Your task to perform on an android device: turn on the 24-hour format for clock Image 0: 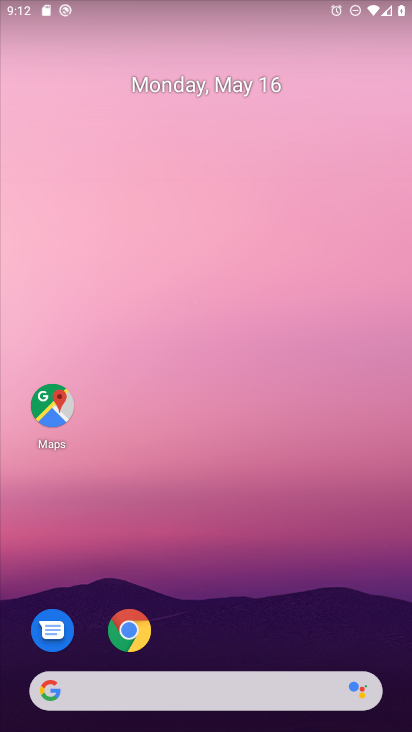
Step 0: drag from (199, 625) to (220, 120)
Your task to perform on an android device: turn on the 24-hour format for clock Image 1: 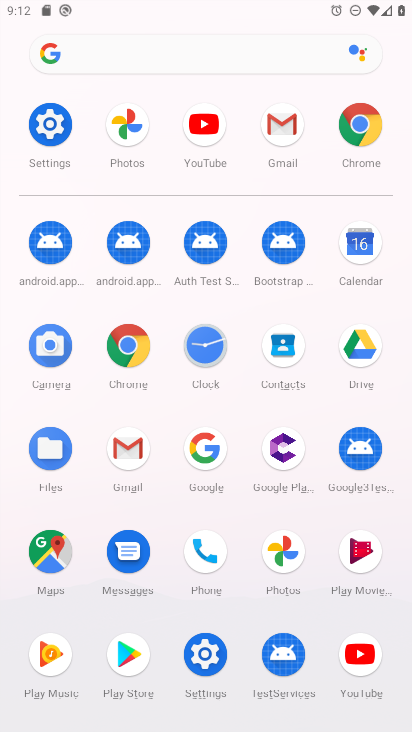
Step 1: click (208, 355)
Your task to perform on an android device: turn on the 24-hour format for clock Image 2: 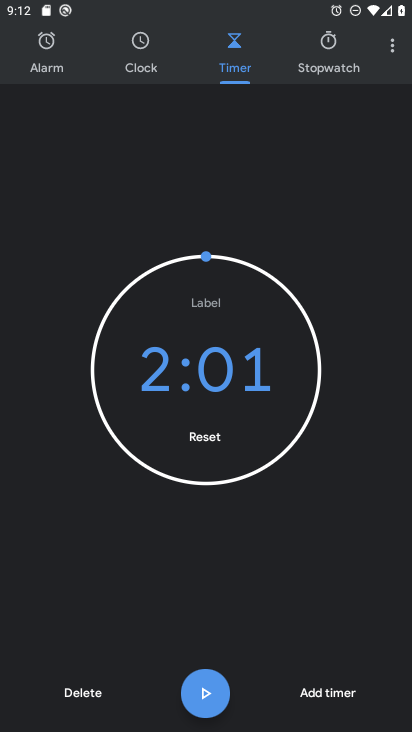
Step 2: click (371, 39)
Your task to perform on an android device: turn on the 24-hour format for clock Image 3: 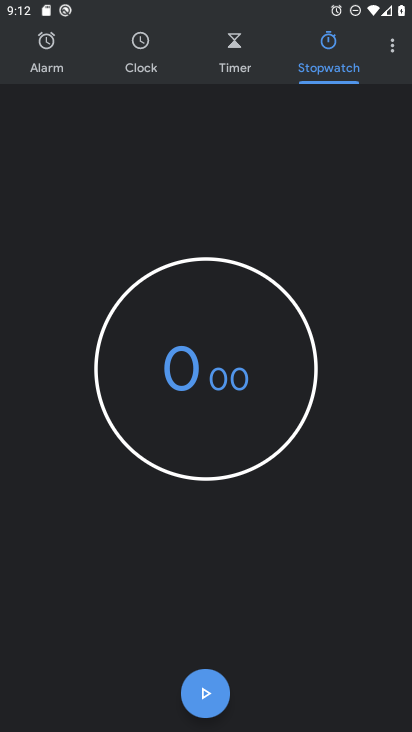
Step 3: click (383, 47)
Your task to perform on an android device: turn on the 24-hour format for clock Image 4: 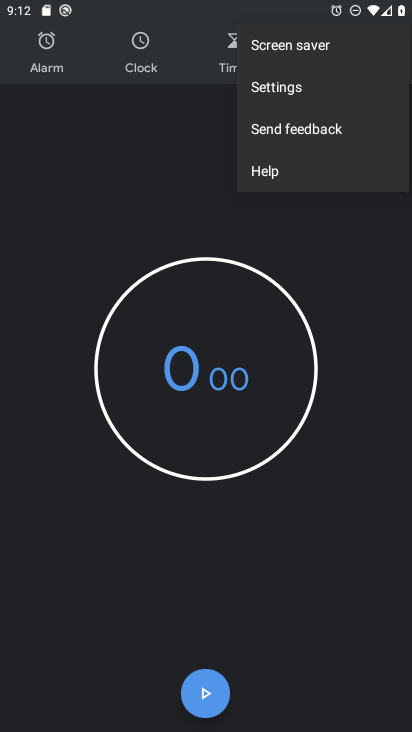
Step 4: click (349, 90)
Your task to perform on an android device: turn on the 24-hour format for clock Image 5: 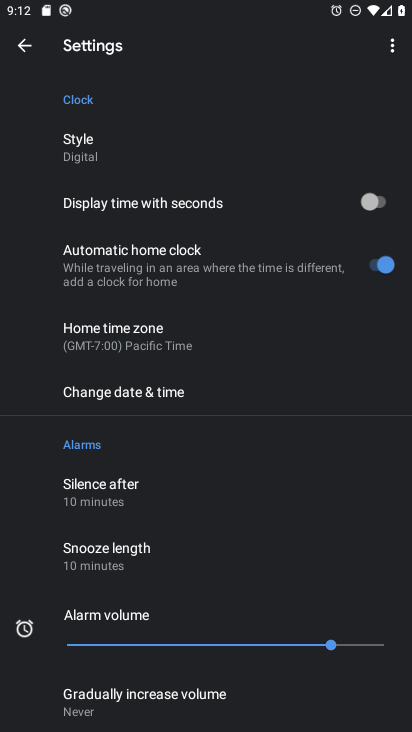
Step 5: drag from (229, 561) to (187, 5)
Your task to perform on an android device: turn on the 24-hour format for clock Image 6: 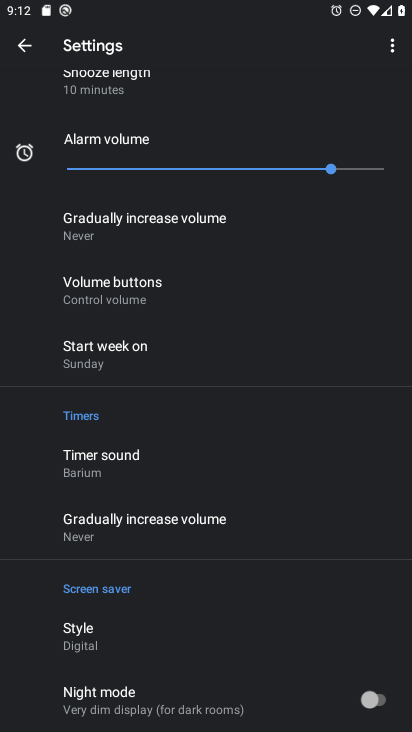
Step 6: drag from (162, 564) to (137, 39)
Your task to perform on an android device: turn on the 24-hour format for clock Image 7: 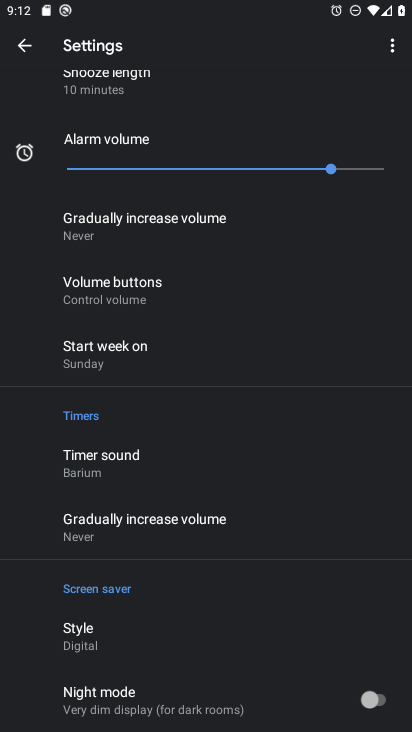
Step 7: drag from (210, 208) to (253, 725)
Your task to perform on an android device: turn on the 24-hour format for clock Image 8: 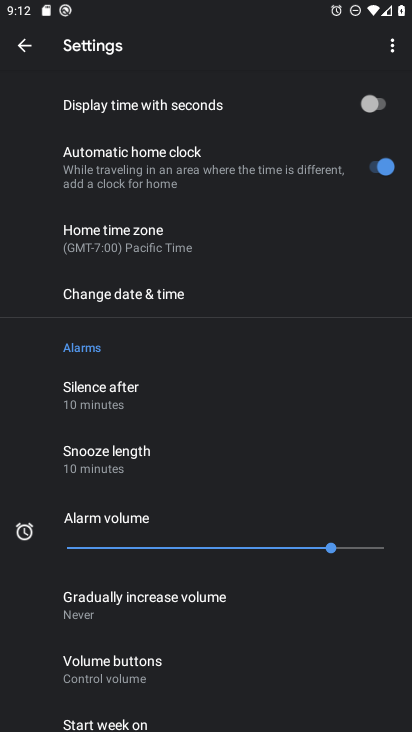
Step 8: click (133, 246)
Your task to perform on an android device: turn on the 24-hour format for clock Image 9: 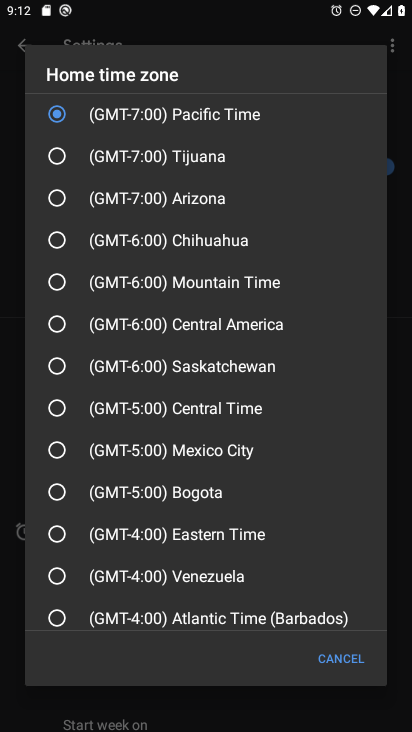
Step 9: click (336, 658)
Your task to perform on an android device: turn on the 24-hour format for clock Image 10: 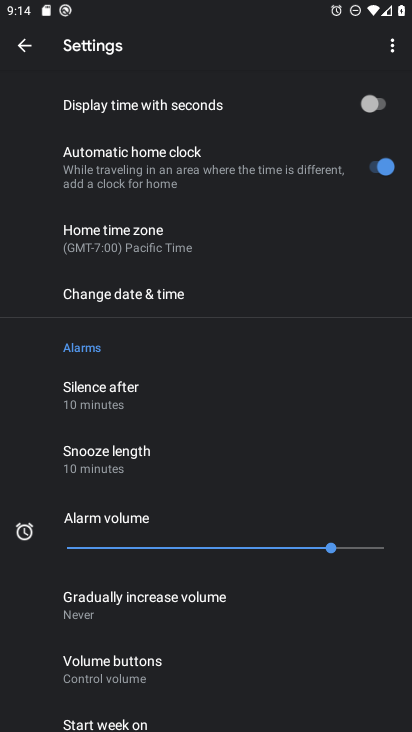
Step 10: click (134, 290)
Your task to perform on an android device: turn on the 24-hour format for clock Image 11: 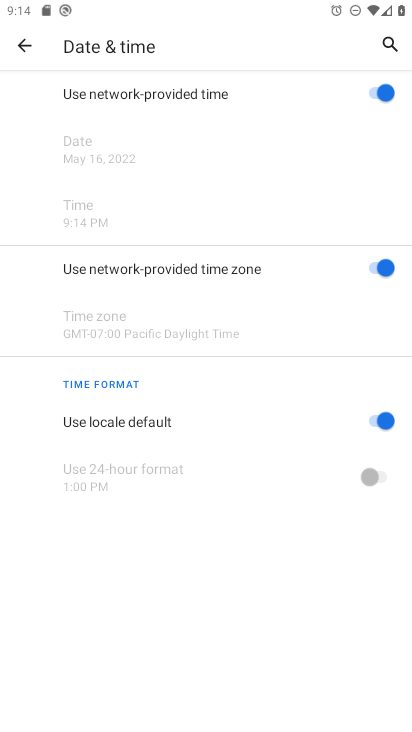
Step 11: click (376, 417)
Your task to perform on an android device: turn on the 24-hour format for clock Image 12: 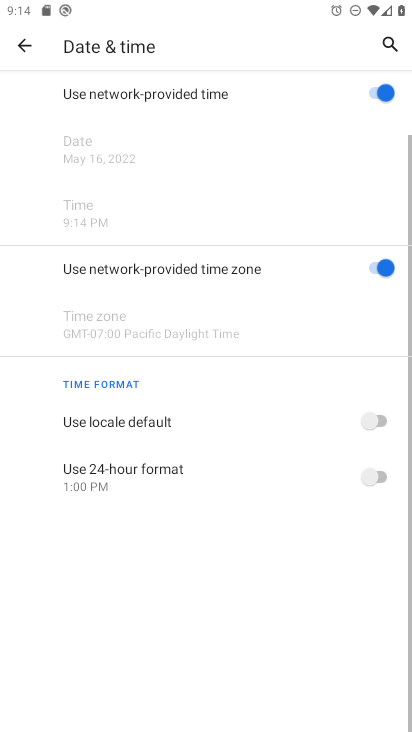
Step 12: click (379, 463)
Your task to perform on an android device: turn on the 24-hour format for clock Image 13: 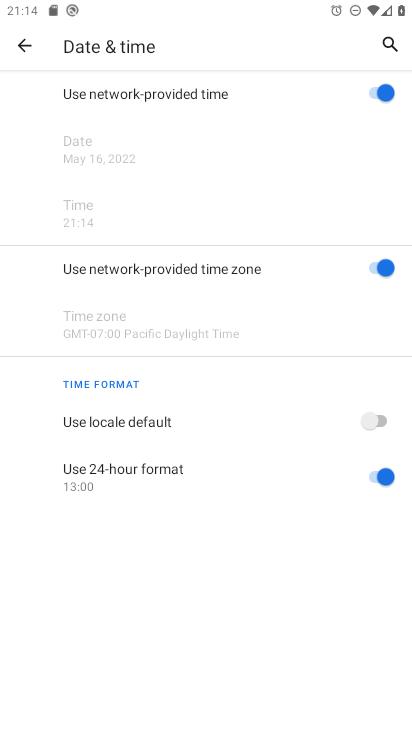
Step 13: task complete